Your task to perform on an android device: Go to calendar. Show me events next week Image 0: 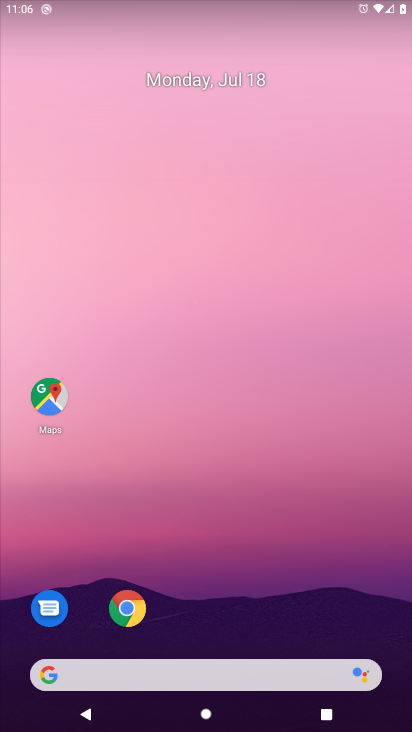
Step 0: drag from (61, 639) to (250, 144)
Your task to perform on an android device: Go to calendar. Show me events next week Image 1: 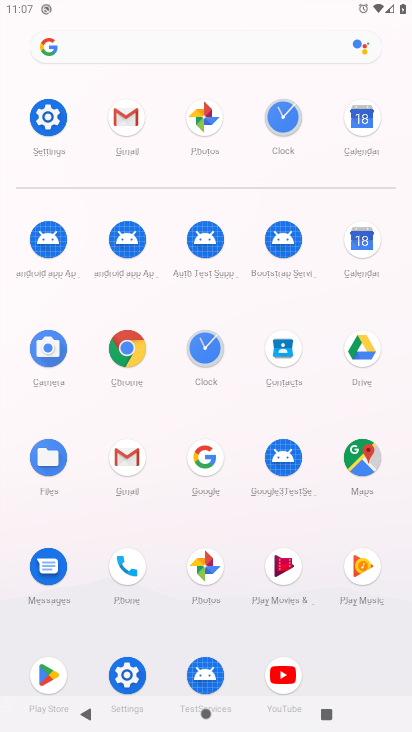
Step 1: click (355, 245)
Your task to perform on an android device: Go to calendar. Show me events next week Image 2: 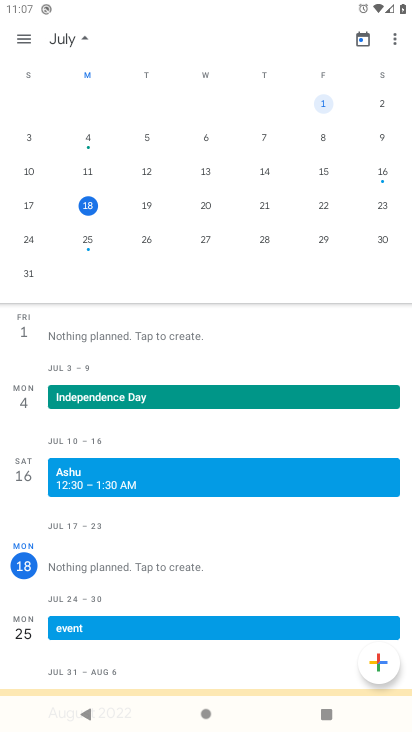
Step 2: task complete